Your task to perform on an android device: turn on bluetooth scan Image 0: 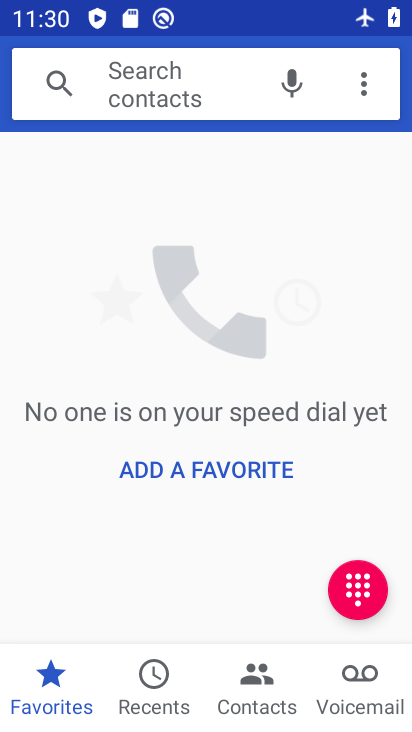
Step 0: press home button
Your task to perform on an android device: turn on bluetooth scan Image 1: 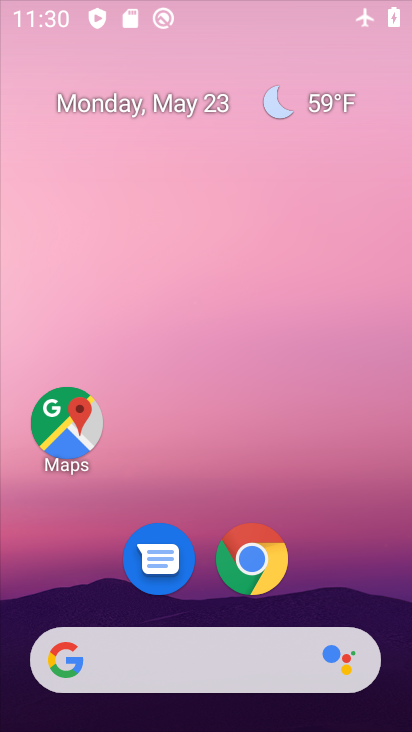
Step 1: drag from (395, 637) to (241, 6)
Your task to perform on an android device: turn on bluetooth scan Image 2: 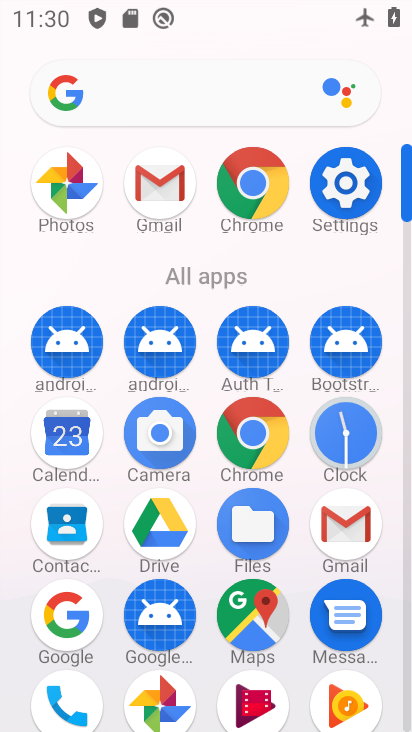
Step 2: click (365, 203)
Your task to perform on an android device: turn on bluetooth scan Image 3: 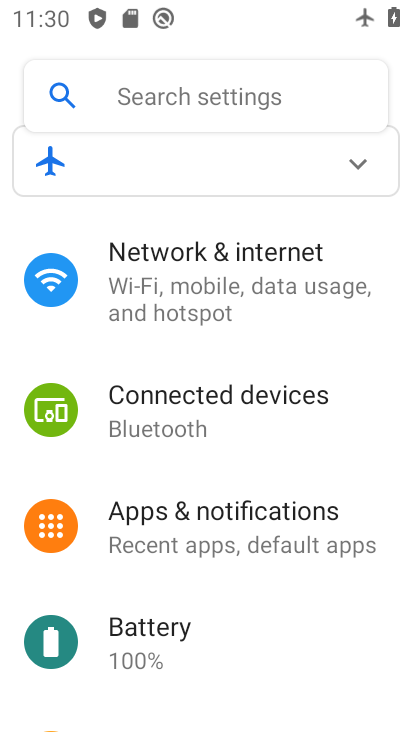
Step 3: drag from (183, 642) to (200, 137)
Your task to perform on an android device: turn on bluetooth scan Image 4: 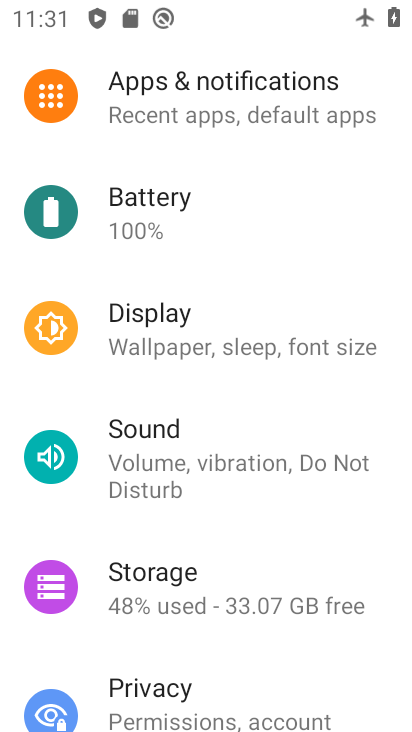
Step 4: drag from (219, 613) to (226, 152)
Your task to perform on an android device: turn on bluetooth scan Image 5: 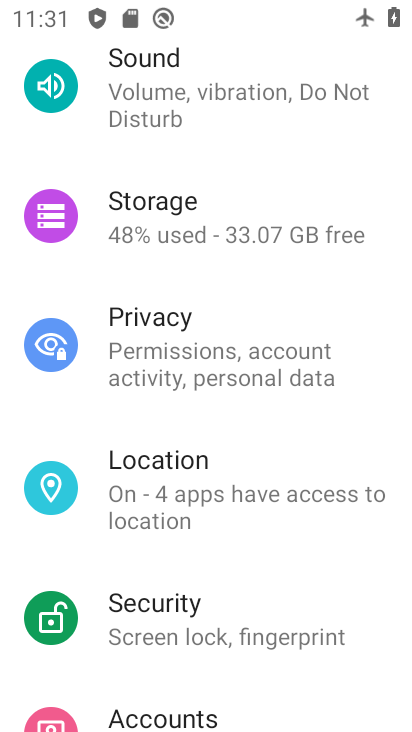
Step 5: click (185, 483)
Your task to perform on an android device: turn on bluetooth scan Image 6: 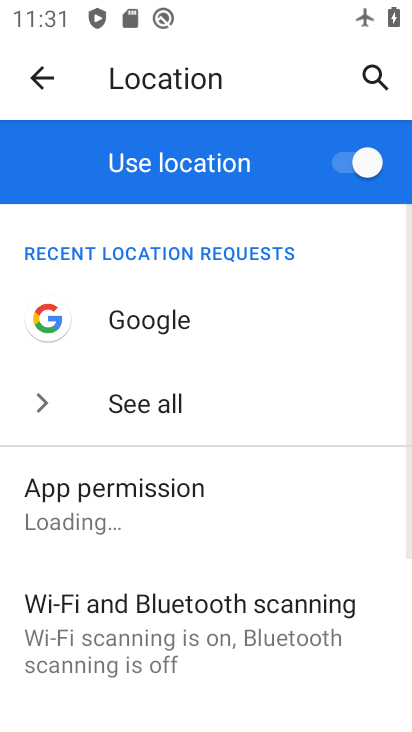
Step 6: click (194, 599)
Your task to perform on an android device: turn on bluetooth scan Image 7: 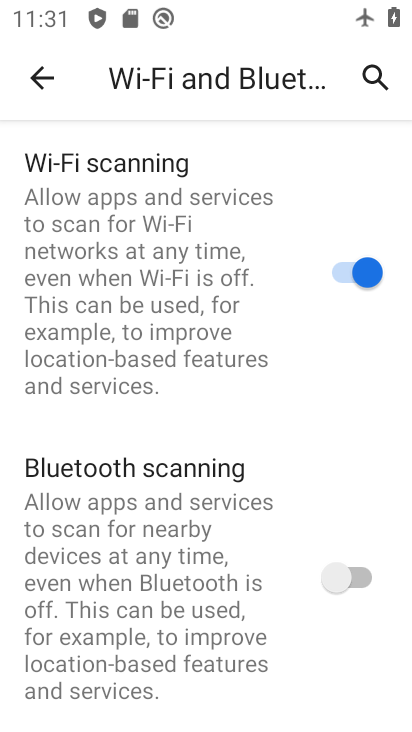
Step 7: click (355, 604)
Your task to perform on an android device: turn on bluetooth scan Image 8: 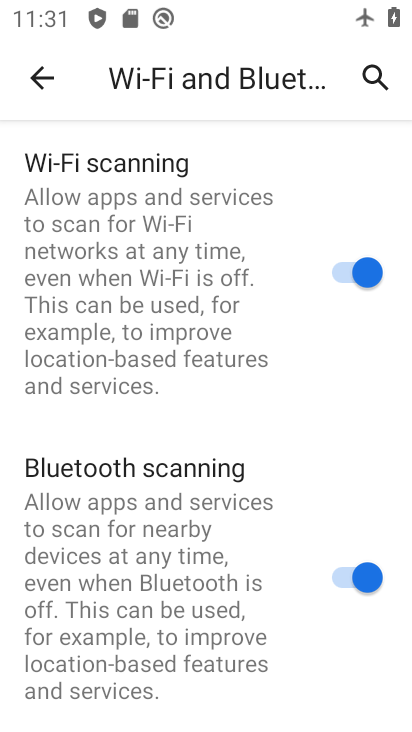
Step 8: task complete